Your task to perform on an android device: Go to wifi settings Image 0: 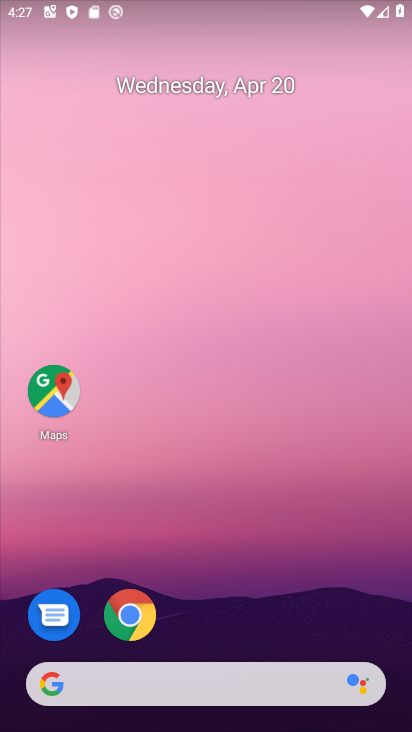
Step 0: drag from (193, 538) to (286, 67)
Your task to perform on an android device: Go to wifi settings Image 1: 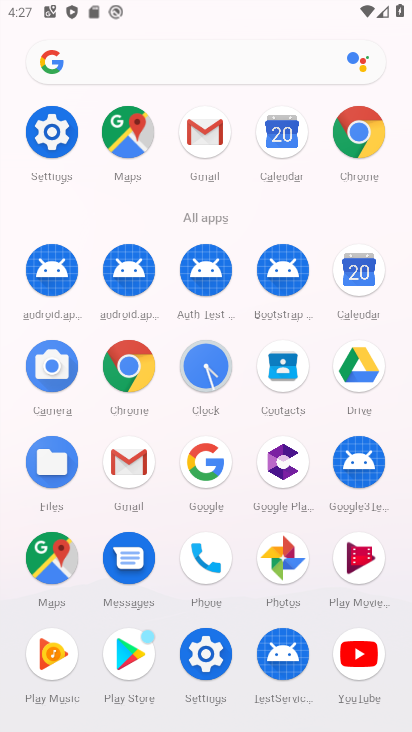
Step 1: click (50, 144)
Your task to perform on an android device: Go to wifi settings Image 2: 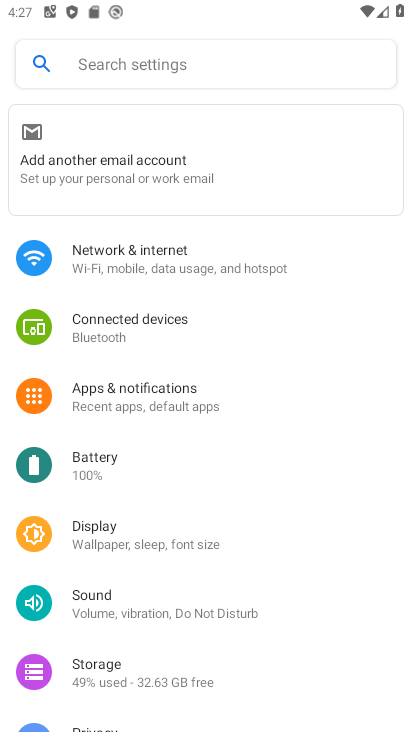
Step 2: click (137, 271)
Your task to perform on an android device: Go to wifi settings Image 3: 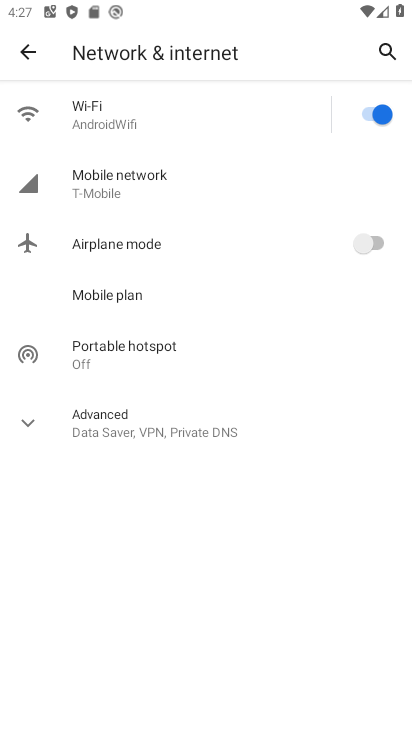
Step 3: click (125, 115)
Your task to perform on an android device: Go to wifi settings Image 4: 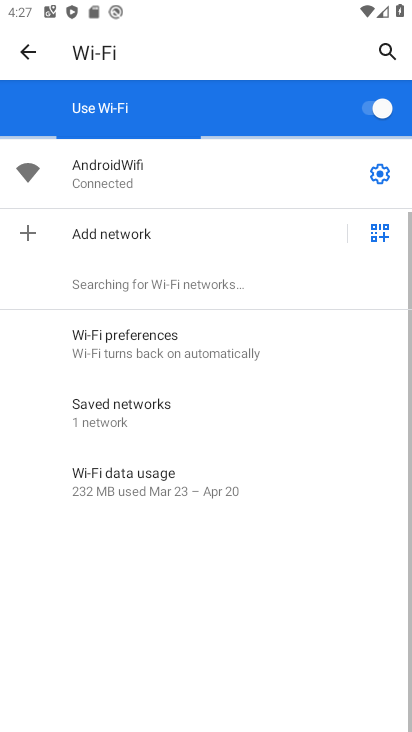
Step 4: task complete